Your task to perform on an android device: change keyboard looks Image 0: 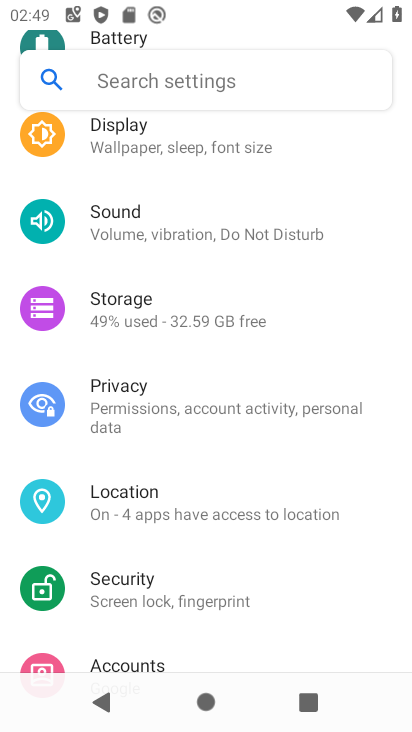
Step 0: drag from (250, 554) to (260, 128)
Your task to perform on an android device: change keyboard looks Image 1: 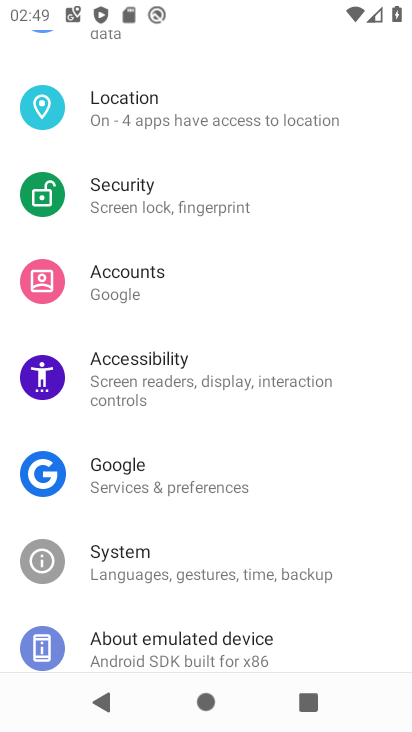
Step 1: drag from (235, 588) to (269, 101)
Your task to perform on an android device: change keyboard looks Image 2: 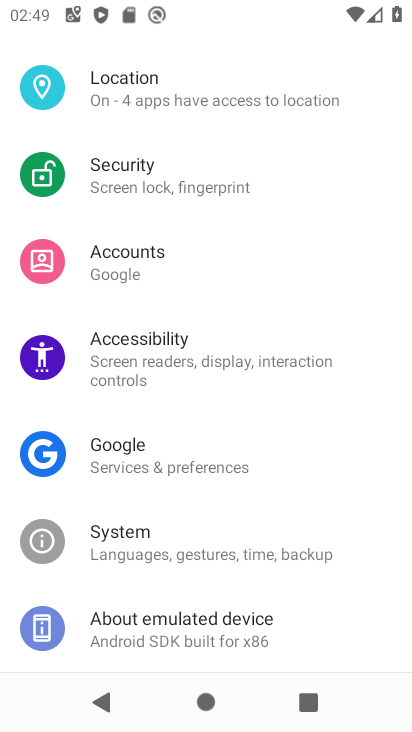
Step 2: click (174, 530)
Your task to perform on an android device: change keyboard looks Image 3: 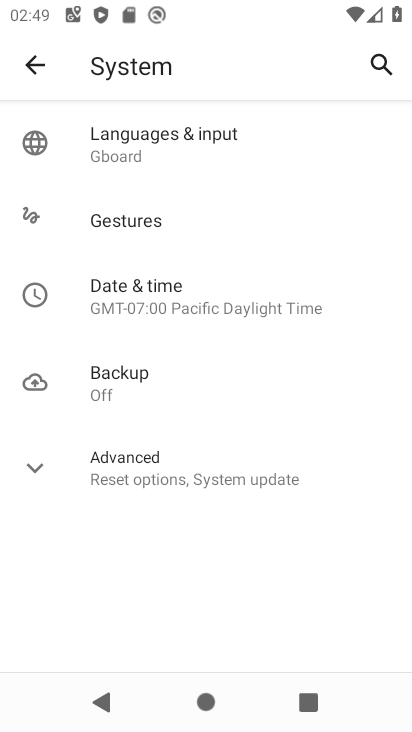
Step 3: click (86, 472)
Your task to perform on an android device: change keyboard looks Image 4: 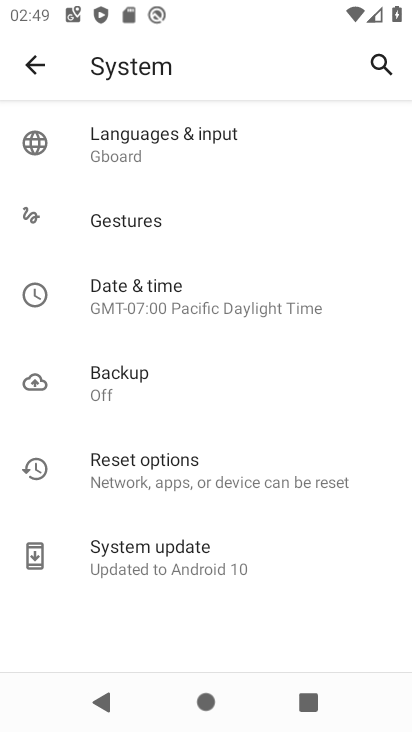
Step 4: click (141, 461)
Your task to perform on an android device: change keyboard looks Image 5: 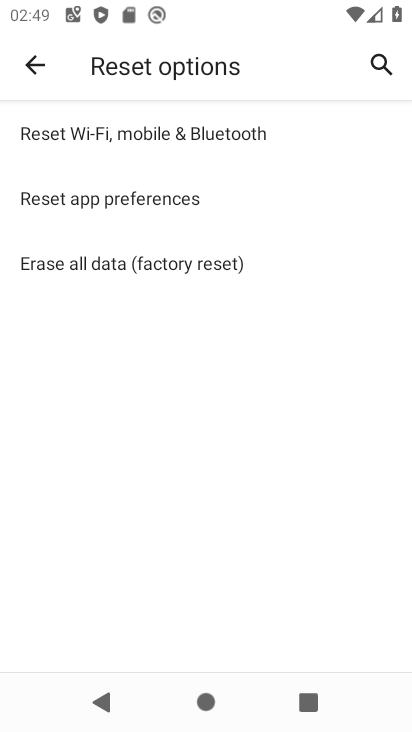
Step 5: click (38, 67)
Your task to perform on an android device: change keyboard looks Image 6: 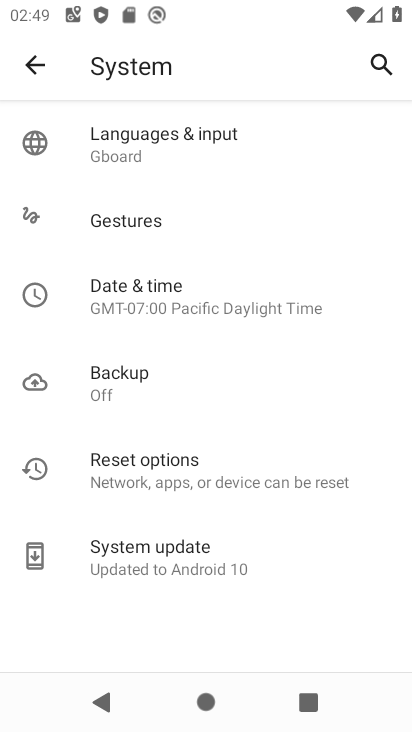
Step 6: click (139, 145)
Your task to perform on an android device: change keyboard looks Image 7: 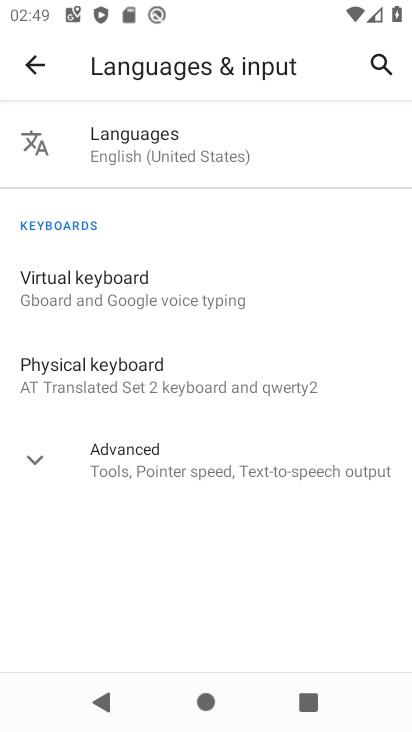
Step 7: click (147, 285)
Your task to perform on an android device: change keyboard looks Image 8: 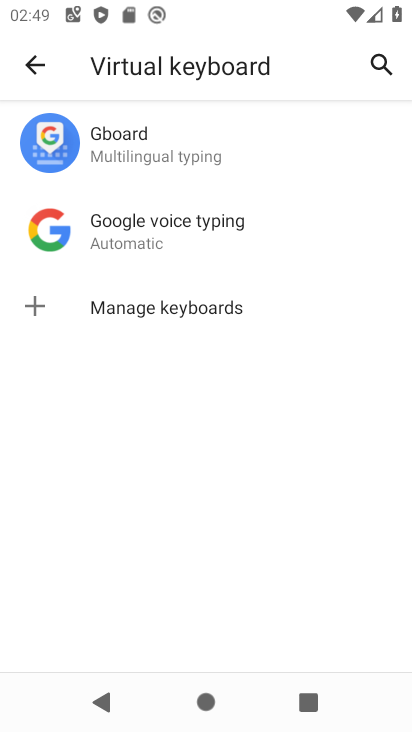
Step 8: click (175, 143)
Your task to perform on an android device: change keyboard looks Image 9: 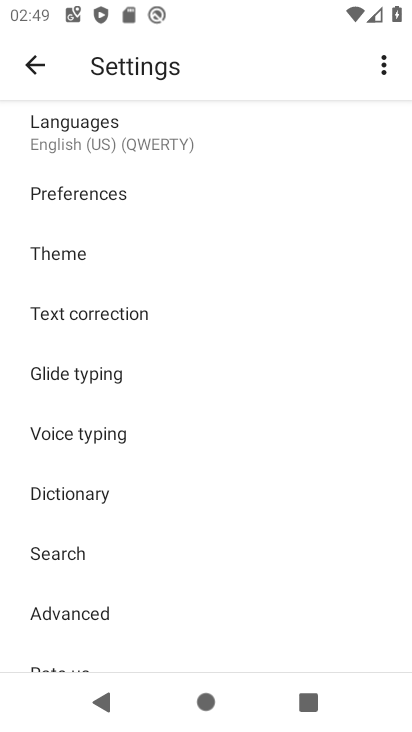
Step 9: drag from (192, 499) to (211, 165)
Your task to perform on an android device: change keyboard looks Image 10: 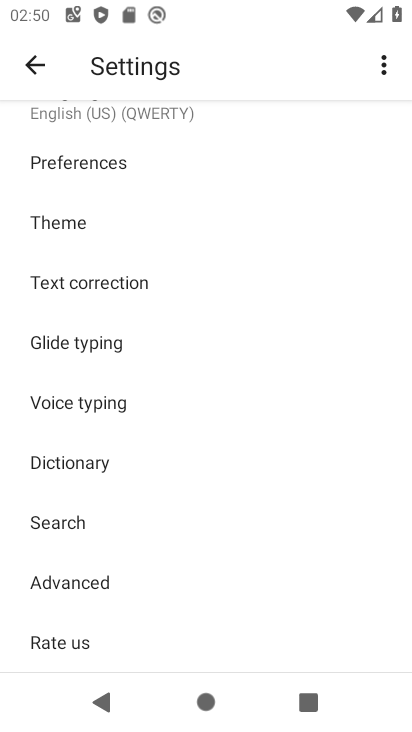
Step 10: click (96, 223)
Your task to perform on an android device: change keyboard looks Image 11: 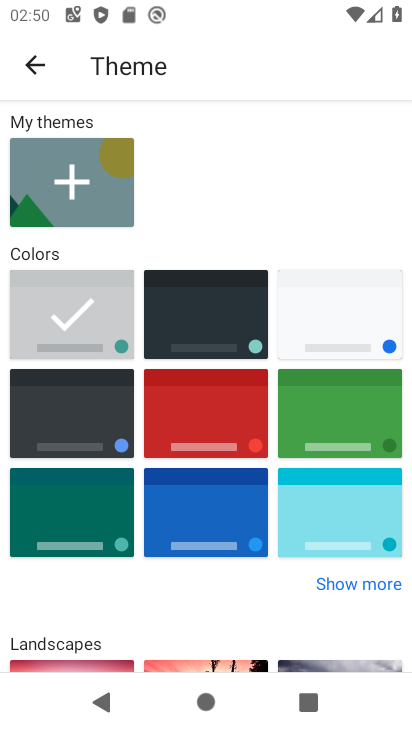
Step 11: click (207, 278)
Your task to perform on an android device: change keyboard looks Image 12: 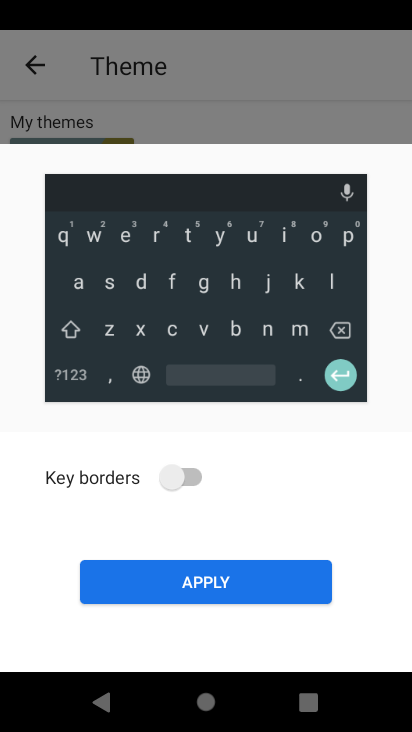
Step 12: click (195, 591)
Your task to perform on an android device: change keyboard looks Image 13: 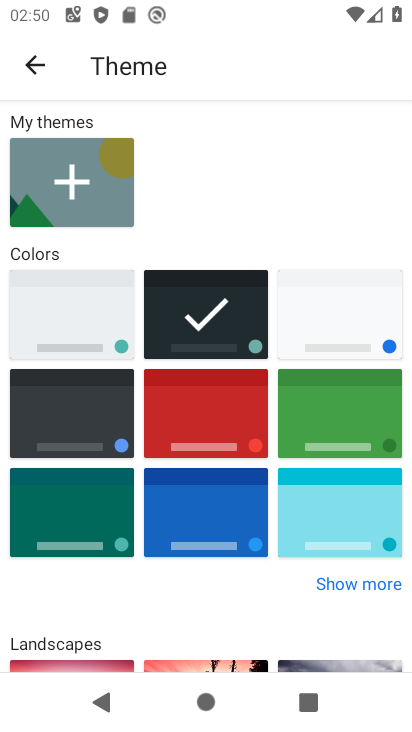
Step 13: task complete